Your task to perform on an android device: change the clock style Image 0: 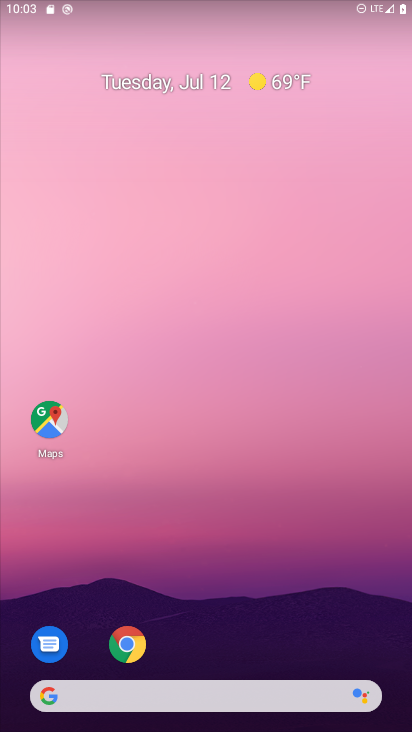
Step 0: drag from (241, 653) to (273, 71)
Your task to perform on an android device: change the clock style Image 1: 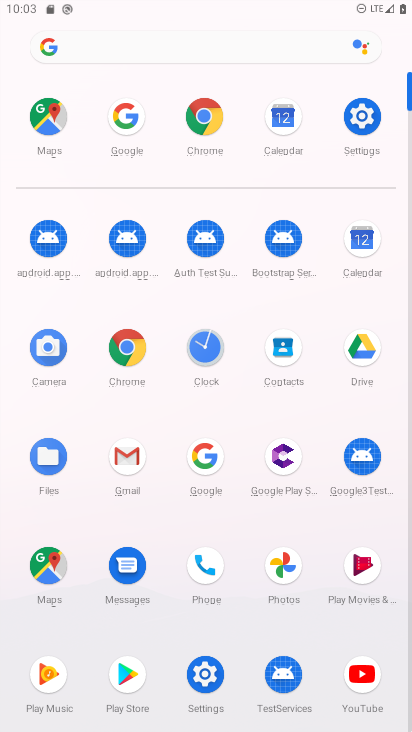
Step 1: click (206, 339)
Your task to perform on an android device: change the clock style Image 2: 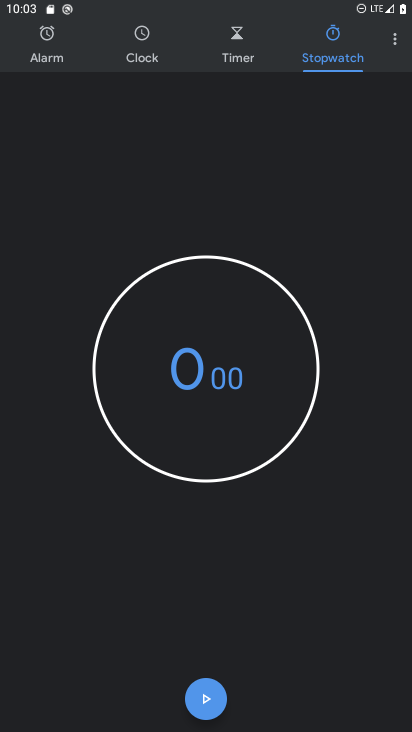
Step 2: click (390, 40)
Your task to perform on an android device: change the clock style Image 3: 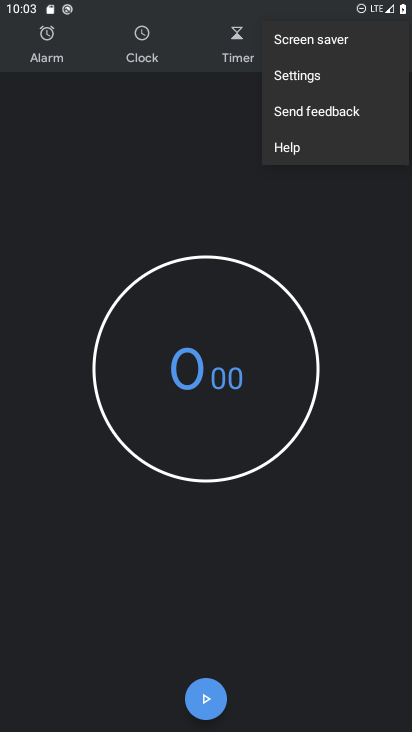
Step 3: click (314, 68)
Your task to perform on an android device: change the clock style Image 4: 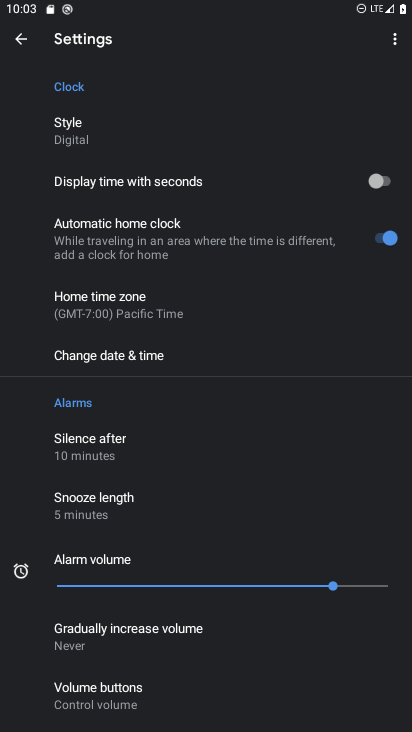
Step 4: click (107, 126)
Your task to perform on an android device: change the clock style Image 5: 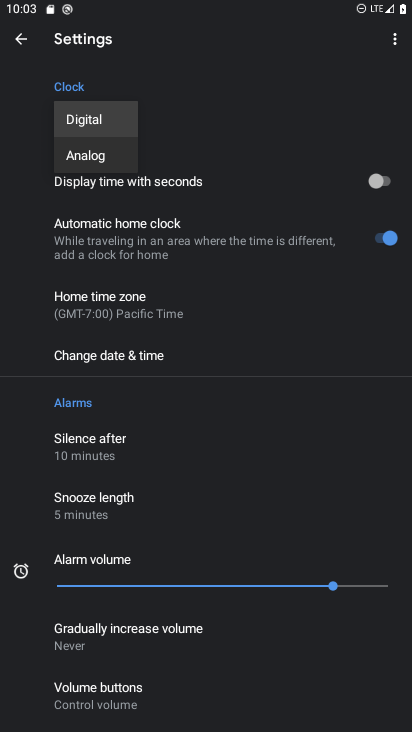
Step 5: click (108, 149)
Your task to perform on an android device: change the clock style Image 6: 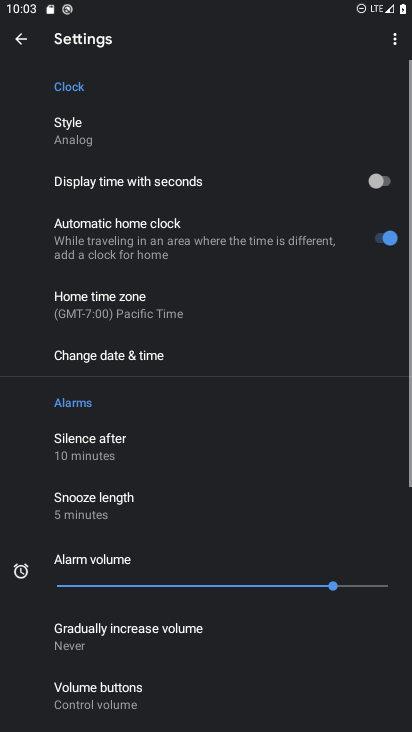
Step 6: task complete